Your task to perform on an android device: Open the Play Movies app and select the watchlist tab. Image 0: 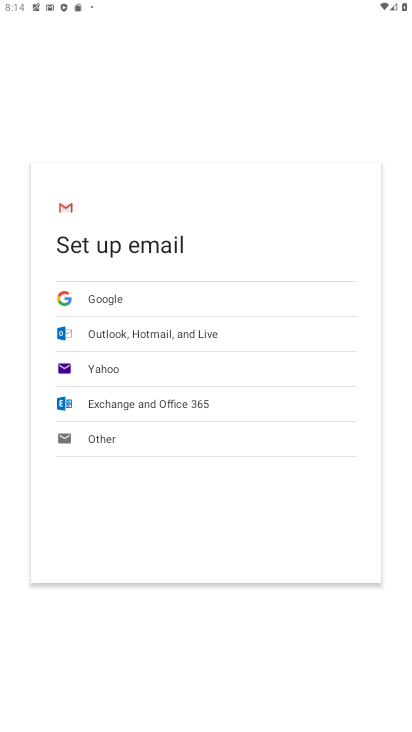
Step 0: press home button
Your task to perform on an android device: Open the Play Movies app and select the watchlist tab. Image 1: 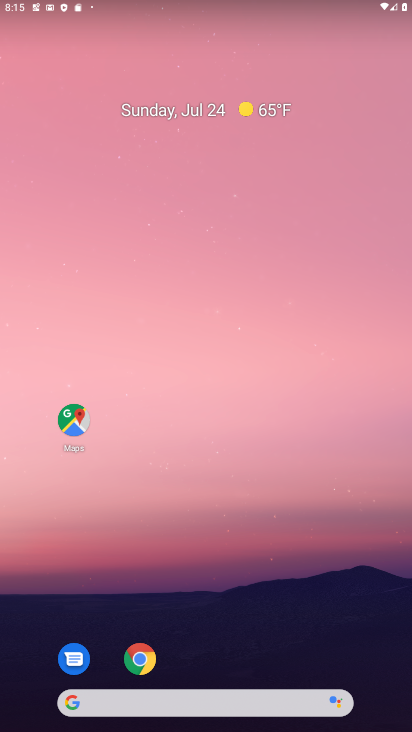
Step 1: drag from (231, 668) to (283, 10)
Your task to perform on an android device: Open the Play Movies app and select the watchlist tab. Image 2: 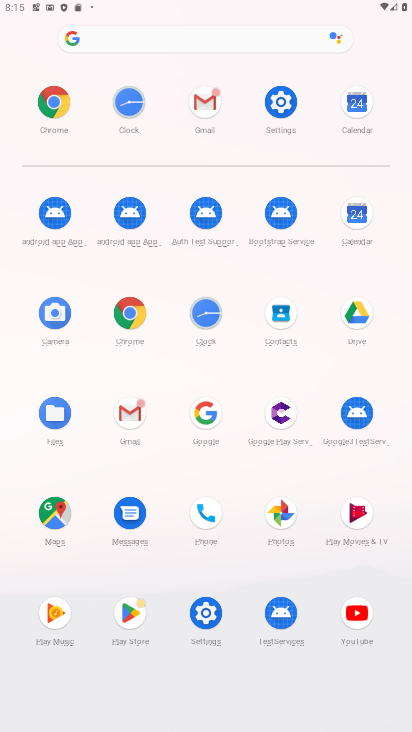
Step 2: click (353, 522)
Your task to perform on an android device: Open the Play Movies app and select the watchlist tab. Image 3: 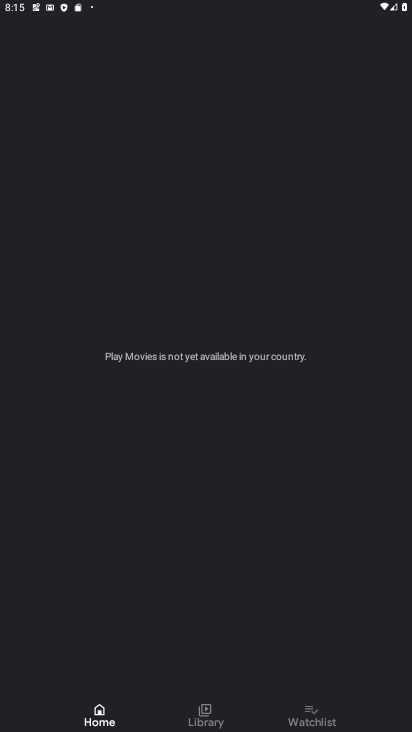
Step 3: click (301, 712)
Your task to perform on an android device: Open the Play Movies app and select the watchlist tab. Image 4: 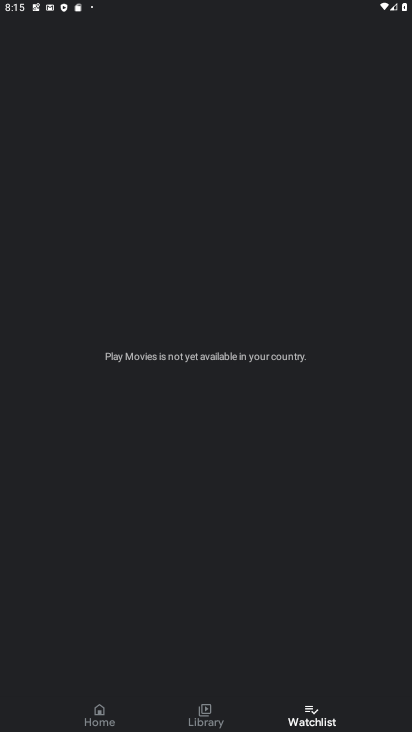
Step 4: task complete